Your task to perform on an android device: Search for "usb-c to usb-b" on walmart, select the first entry, and add it to the cart. Image 0: 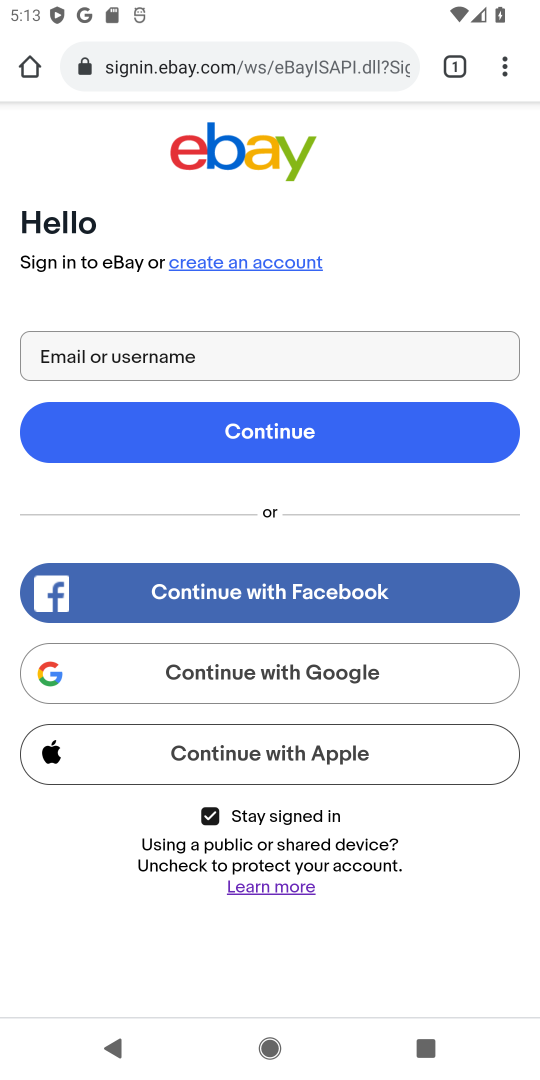
Step 0: press home button
Your task to perform on an android device: Search for "usb-c to usb-b" on walmart, select the first entry, and add it to the cart. Image 1: 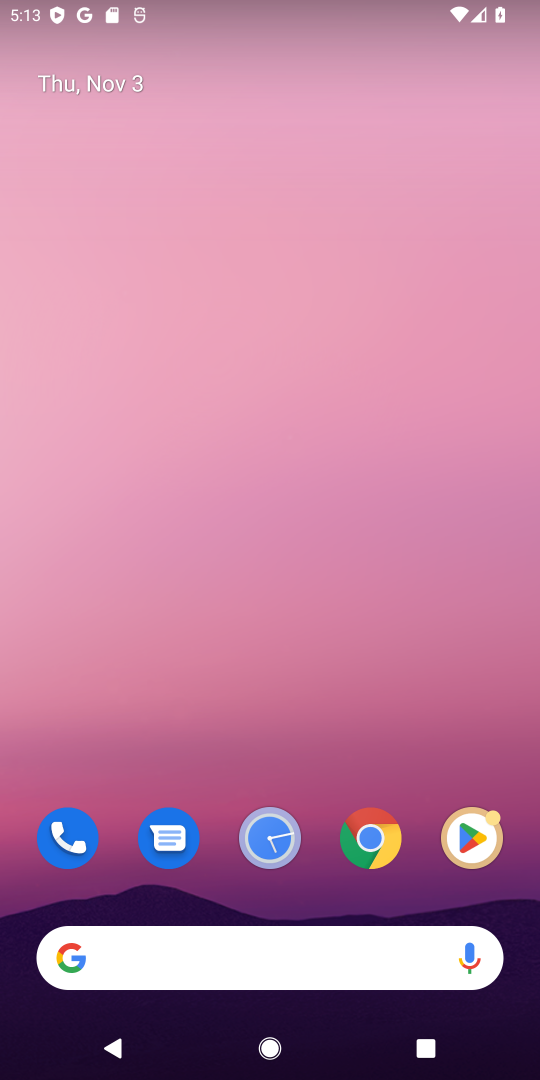
Step 1: click (281, 948)
Your task to perform on an android device: Search for "usb-c to usb-b" on walmart, select the first entry, and add it to the cart. Image 2: 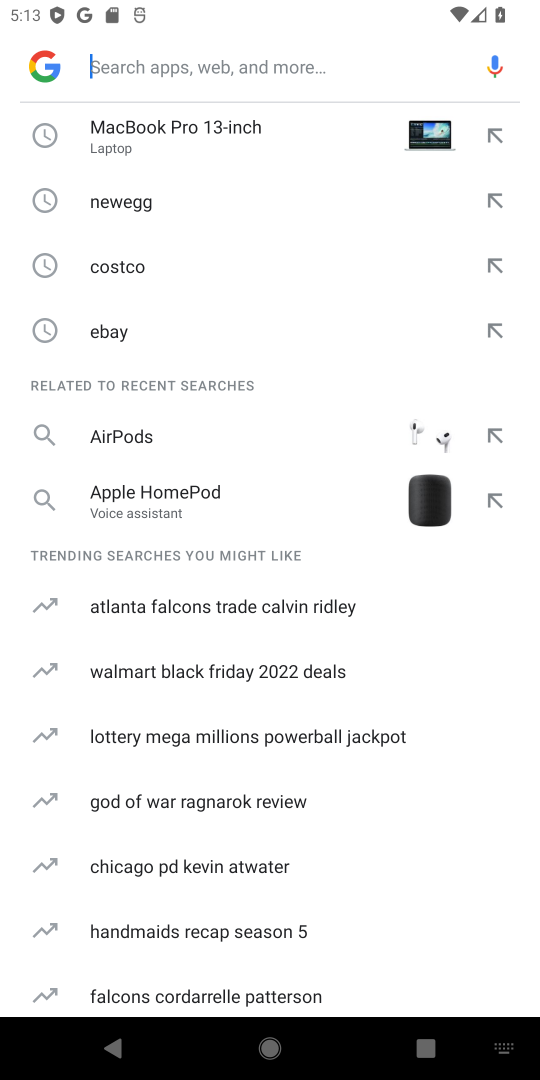
Step 2: type "walmart"
Your task to perform on an android device: Search for "usb-c to usb-b" on walmart, select the first entry, and add it to the cart. Image 3: 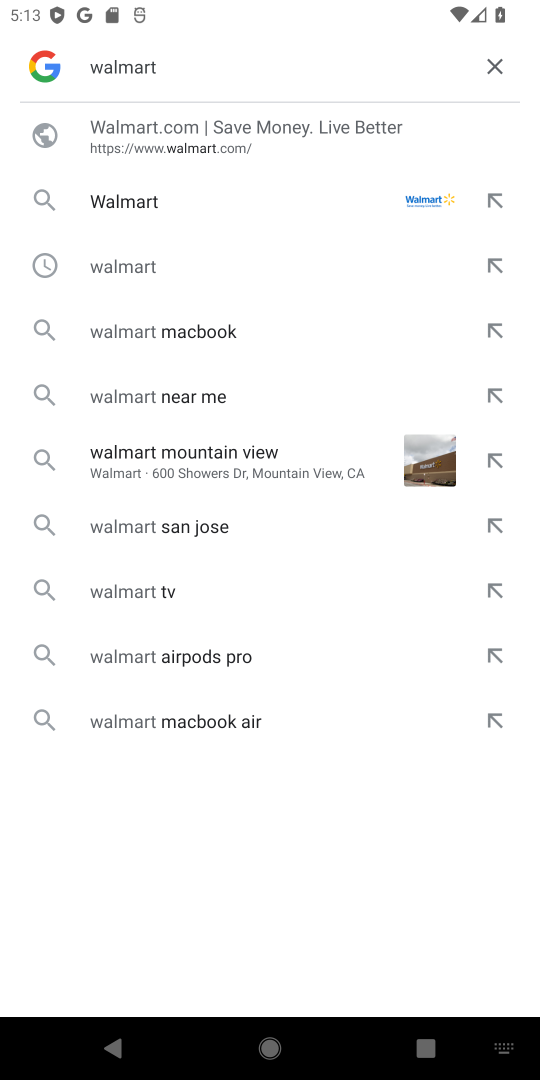
Step 3: click (134, 205)
Your task to perform on an android device: Search for "usb-c to usb-b" on walmart, select the first entry, and add it to the cart. Image 4: 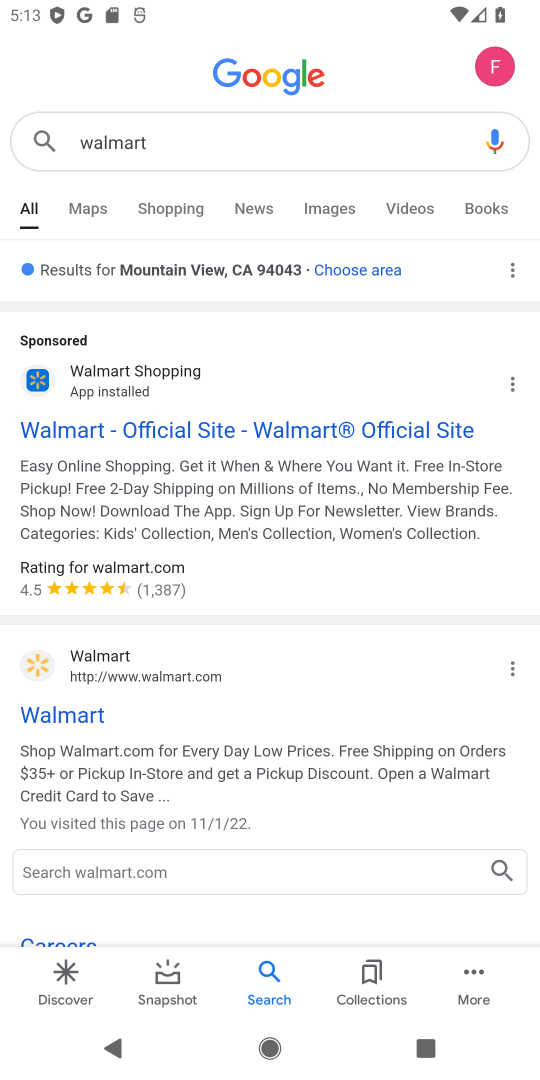
Step 4: click (35, 718)
Your task to perform on an android device: Search for "usb-c to usb-b" on walmart, select the first entry, and add it to the cart. Image 5: 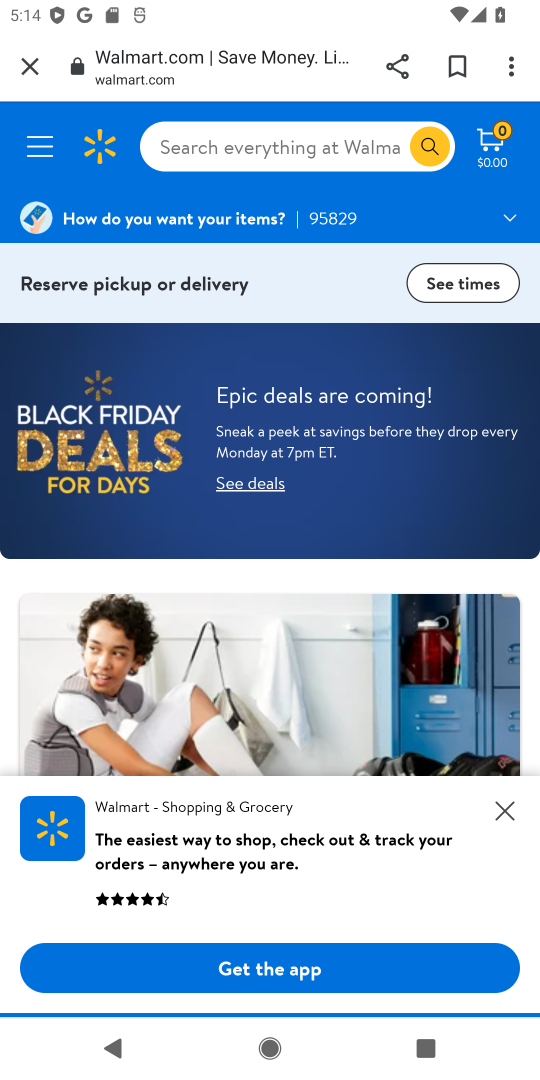
Step 5: click (213, 138)
Your task to perform on an android device: Search for "usb-c to usb-b" on walmart, select the first entry, and add it to the cart. Image 6: 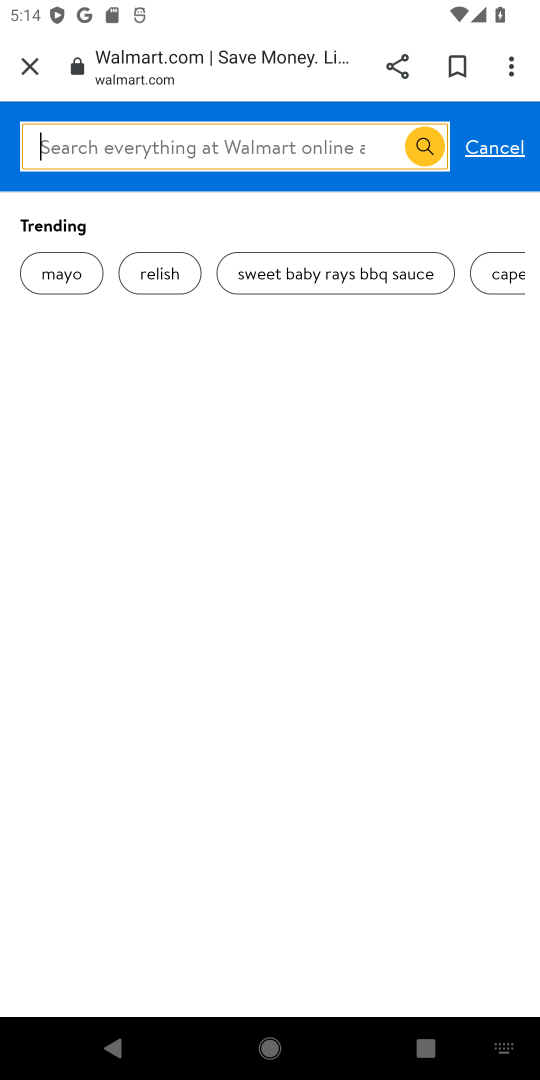
Step 6: type "usb-c to usb-b"
Your task to perform on an android device: Search for "usb-c to usb-b" on walmart, select the first entry, and add it to the cart. Image 7: 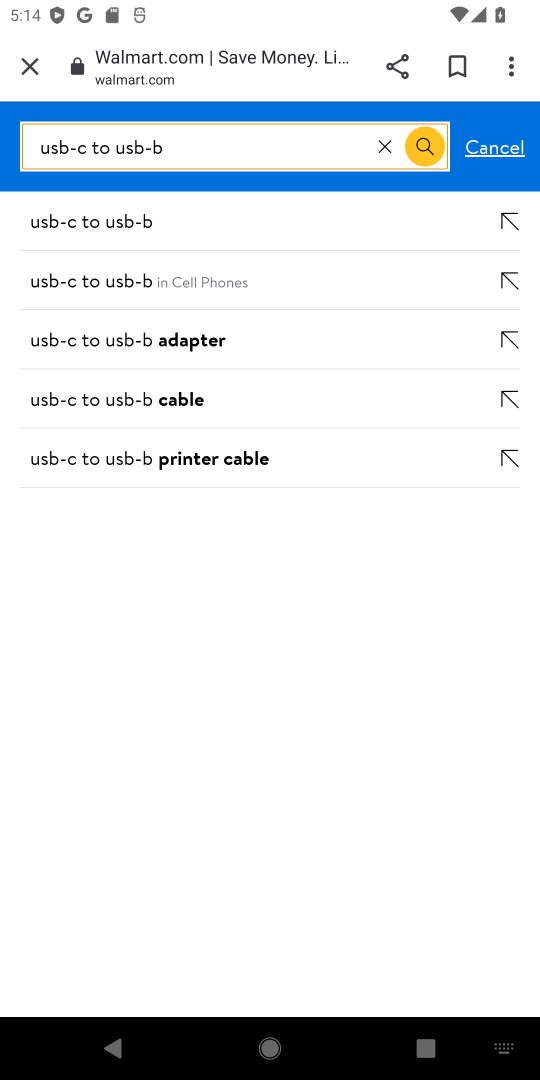
Step 7: click (110, 224)
Your task to perform on an android device: Search for "usb-c to usb-b" on walmart, select the first entry, and add it to the cart. Image 8: 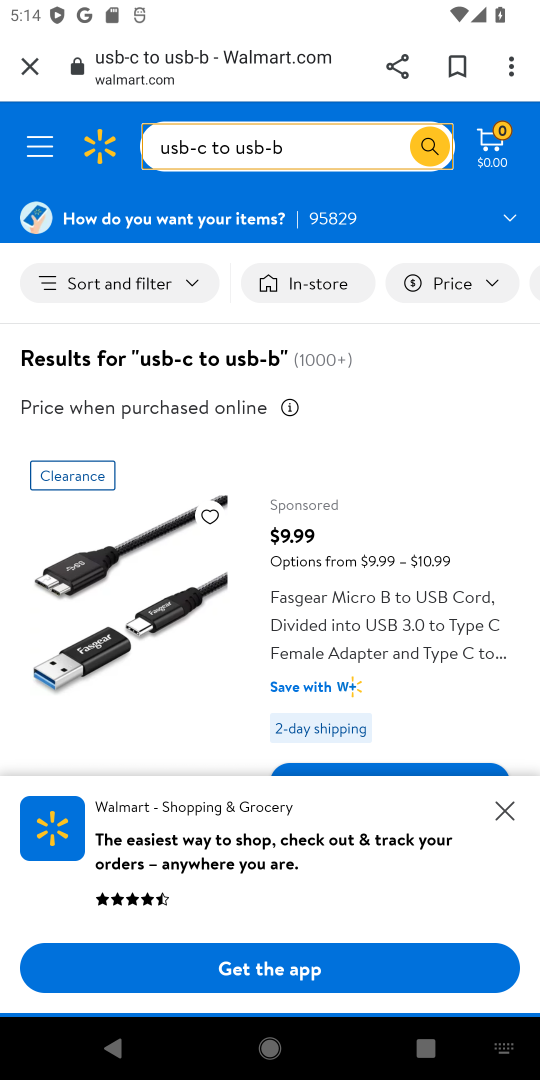
Step 8: click (503, 813)
Your task to perform on an android device: Search for "usb-c to usb-b" on walmart, select the first entry, and add it to the cart. Image 9: 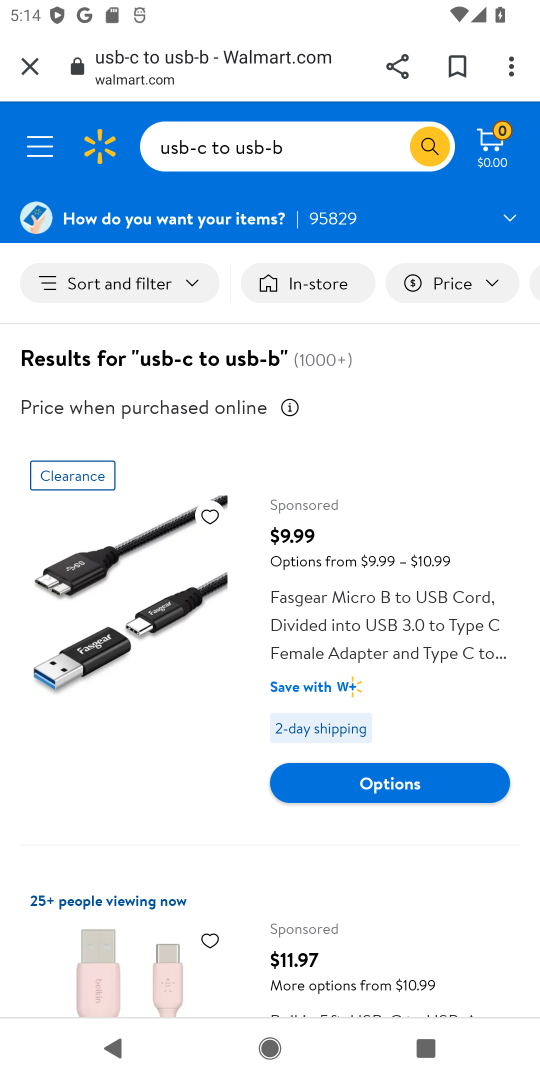
Step 9: click (409, 787)
Your task to perform on an android device: Search for "usb-c to usb-b" on walmart, select the first entry, and add it to the cart. Image 10: 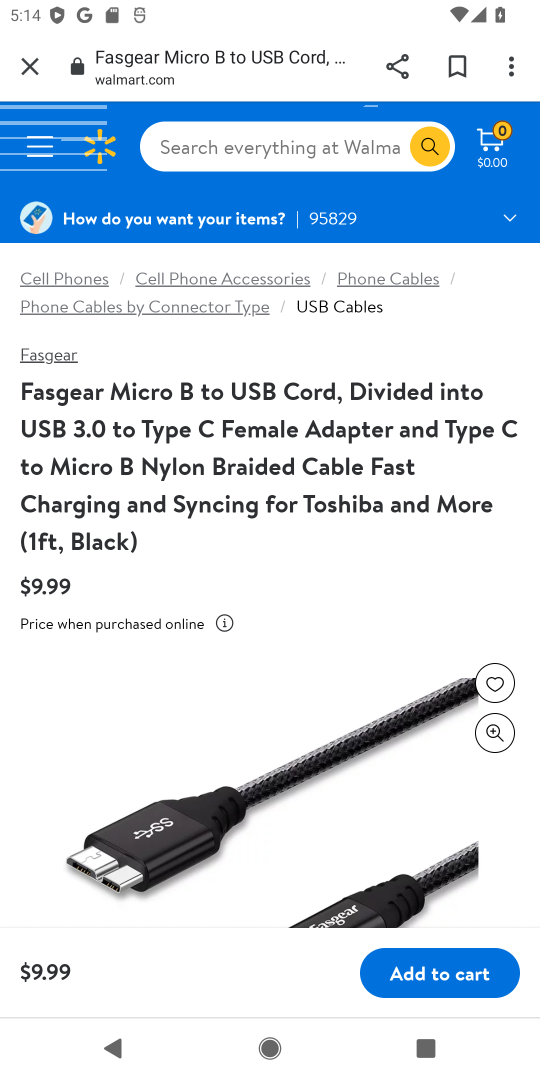
Step 10: click (401, 967)
Your task to perform on an android device: Search for "usb-c to usb-b" on walmart, select the first entry, and add it to the cart. Image 11: 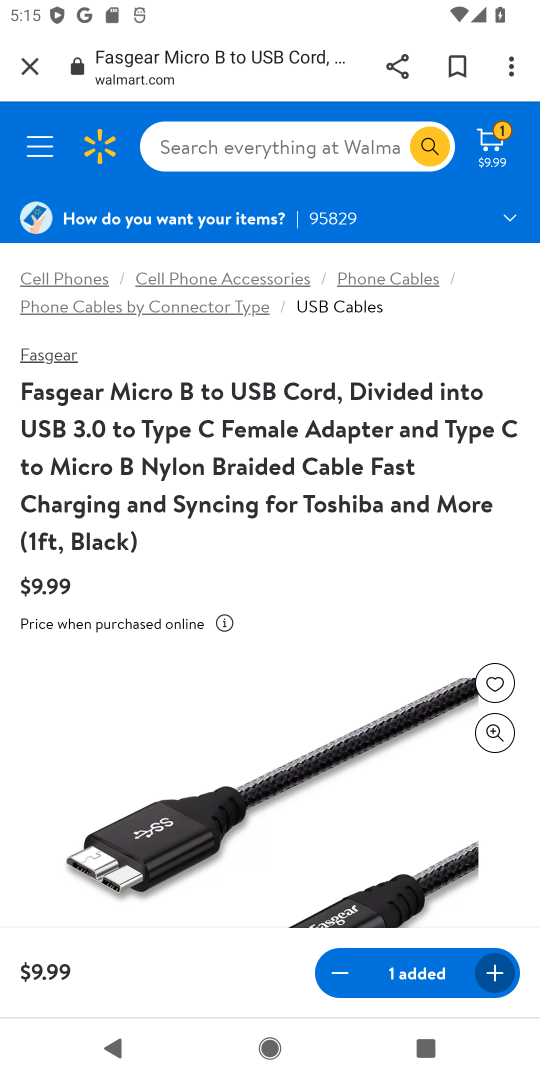
Step 11: task complete